Your task to perform on an android device: Do I have any events today? Image 0: 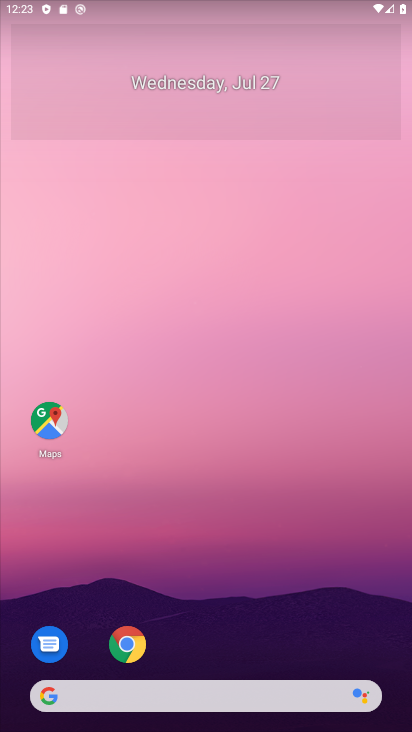
Step 0: drag from (233, 654) to (265, 213)
Your task to perform on an android device: Do I have any events today? Image 1: 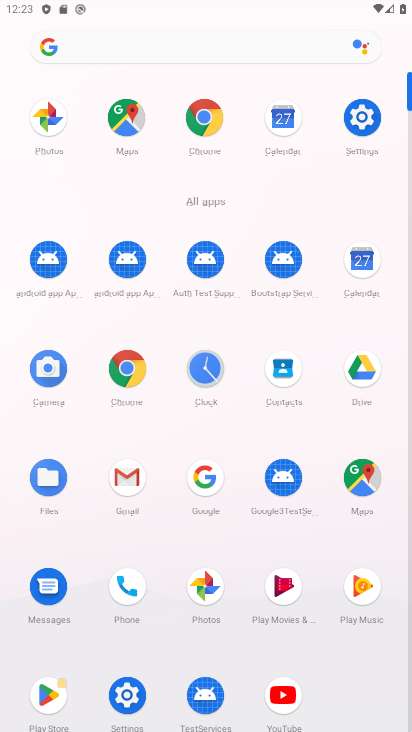
Step 1: click (357, 263)
Your task to perform on an android device: Do I have any events today? Image 2: 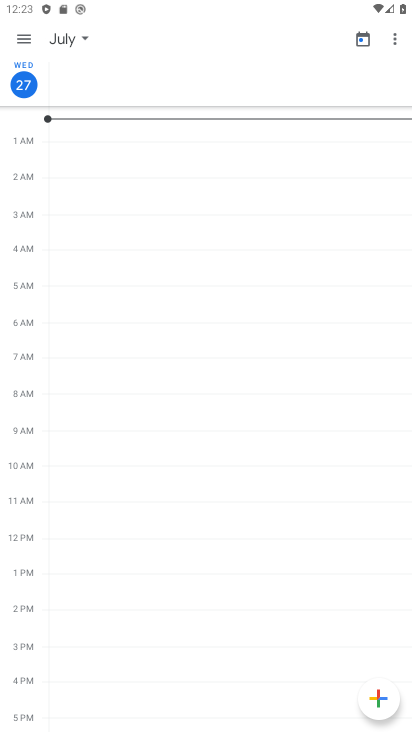
Step 2: click (32, 38)
Your task to perform on an android device: Do I have any events today? Image 3: 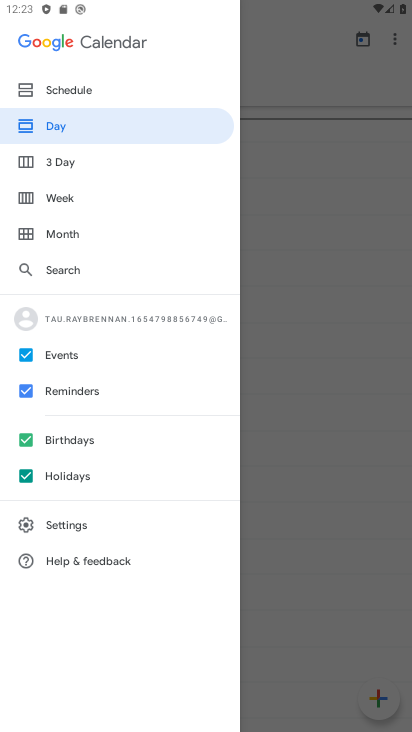
Step 3: click (68, 391)
Your task to perform on an android device: Do I have any events today? Image 4: 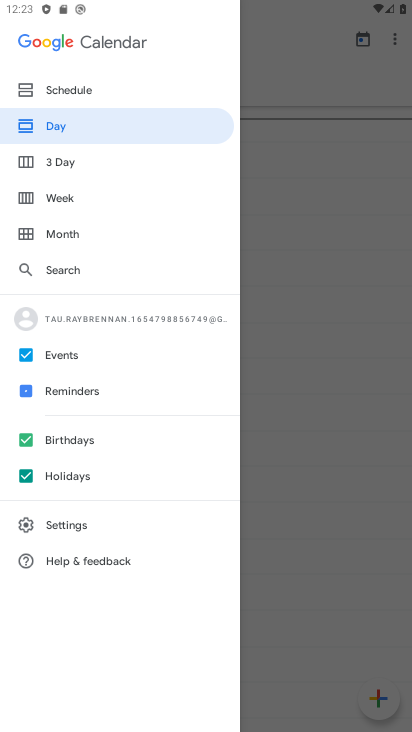
Step 4: click (67, 446)
Your task to perform on an android device: Do I have any events today? Image 5: 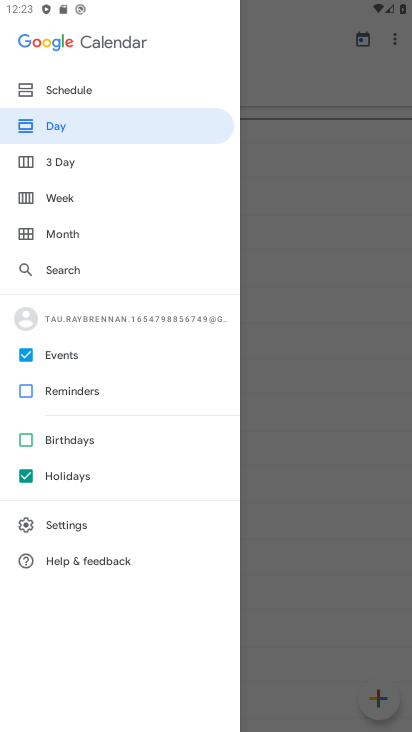
Step 5: click (59, 476)
Your task to perform on an android device: Do I have any events today? Image 6: 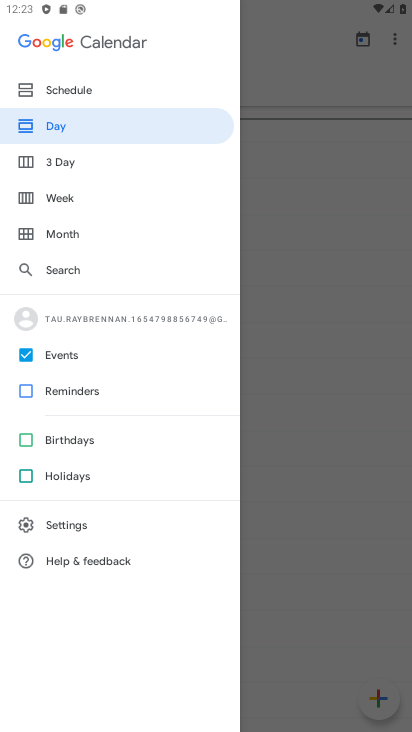
Step 6: click (90, 126)
Your task to perform on an android device: Do I have any events today? Image 7: 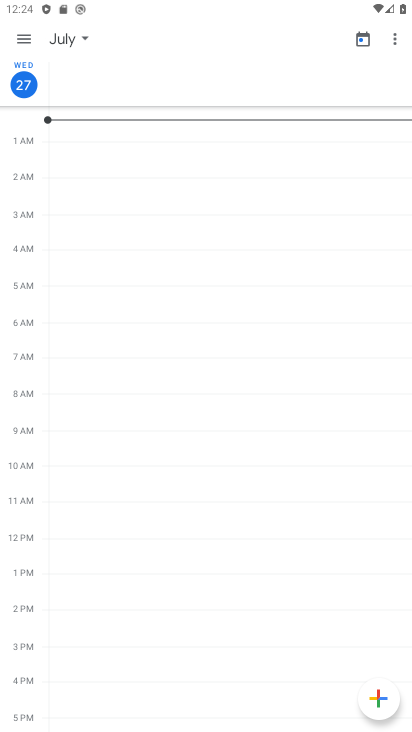
Step 7: task complete